Your task to perform on an android device: find snoozed emails in the gmail app Image 0: 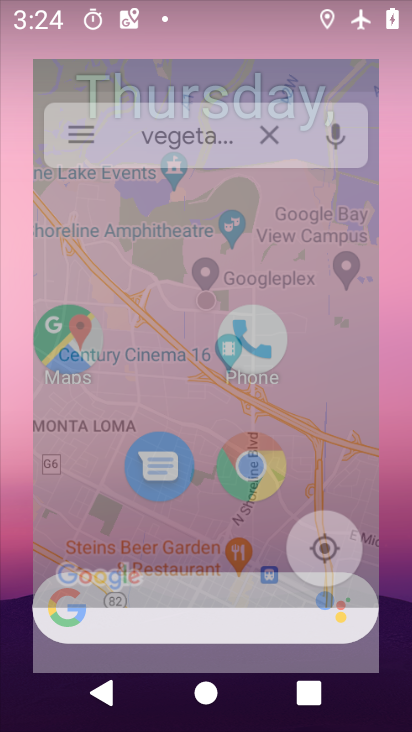
Step 0: drag from (222, 437) to (257, 169)
Your task to perform on an android device: find snoozed emails in the gmail app Image 1: 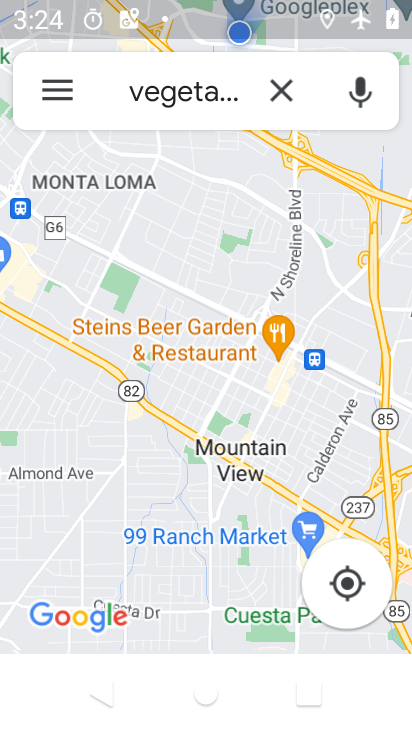
Step 1: press home button
Your task to perform on an android device: find snoozed emails in the gmail app Image 2: 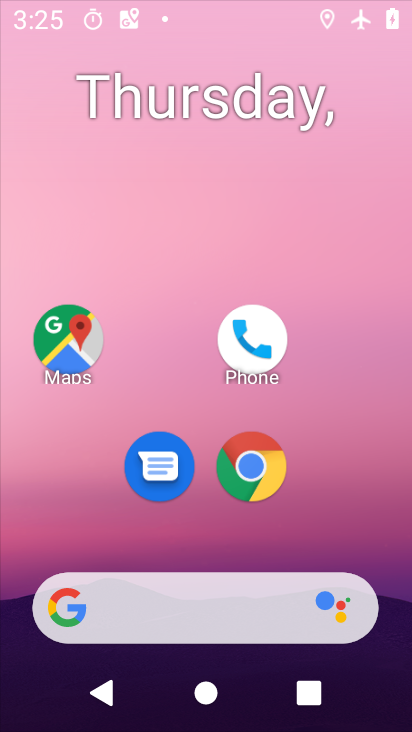
Step 2: drag from (209, 525) to (256, 121)
Your task to perform on an android device: find snoozed emails in the gmail app Image 3: 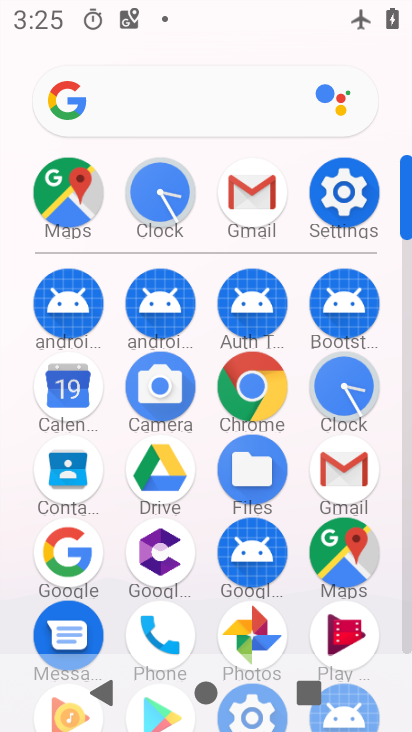
Step 3: click (340, 467)
Your task to perform on an android device: find snoozed emails in the gmail app Image 4: 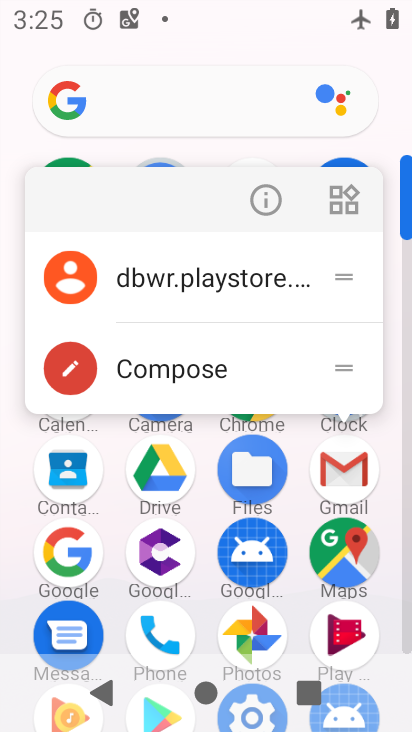
Step 4: click (197, 283)
Your task to perform on an android device: find snoozed emails in the gmail app Image 5: 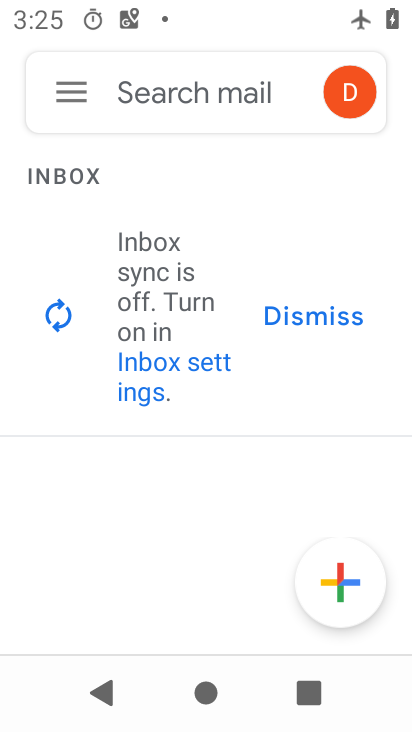
Step 5: click (64, 81)
Your task to perform on an android device: find snoozed emails in the gmail app Image 6: 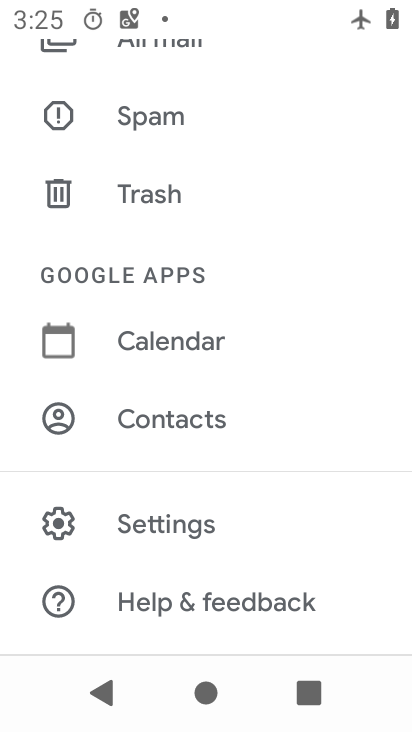
Step 6: drag from (201, 130) to (278, 634)
Your task to perform on an android device: find snoozed emails in the gmail app Image 7: 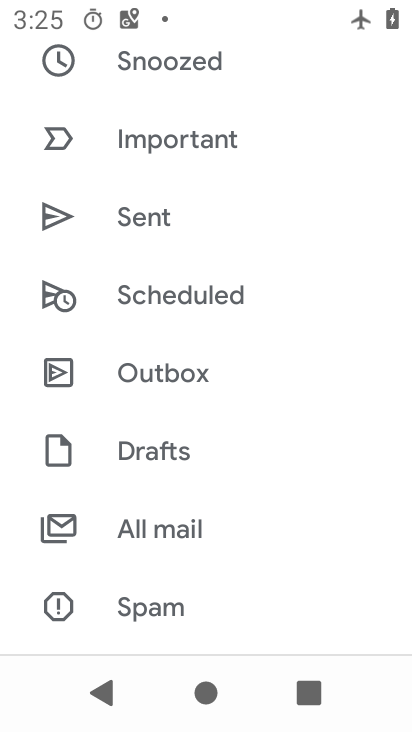
Step 7: click (174, 65)
Your task to perform on an android device: find snoozed emails in the gmail app Image 8: 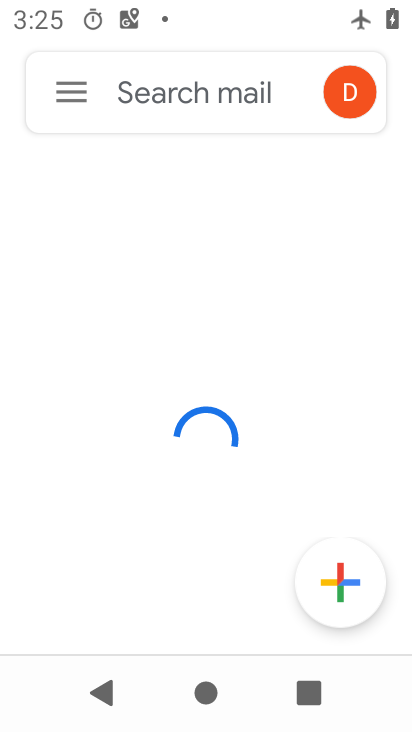
Step 8: click (68, 82)
Your task to perform on an android device: find snoozed emails in the gmail app Image 9: 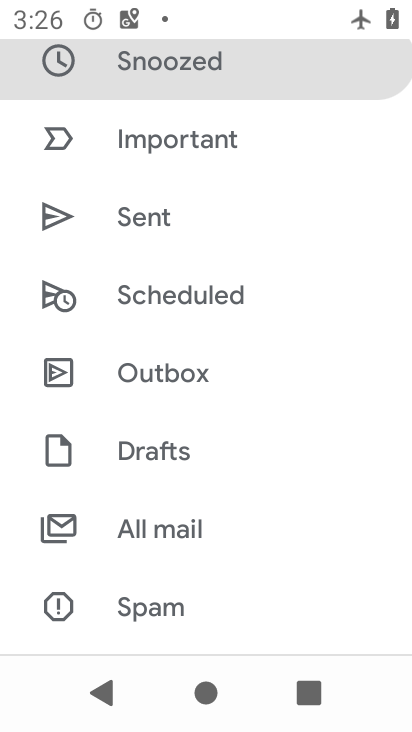
Step 9: click (210, 61)
Your task to perform on an android device: find snoozed emails in the gmail app Image 10: 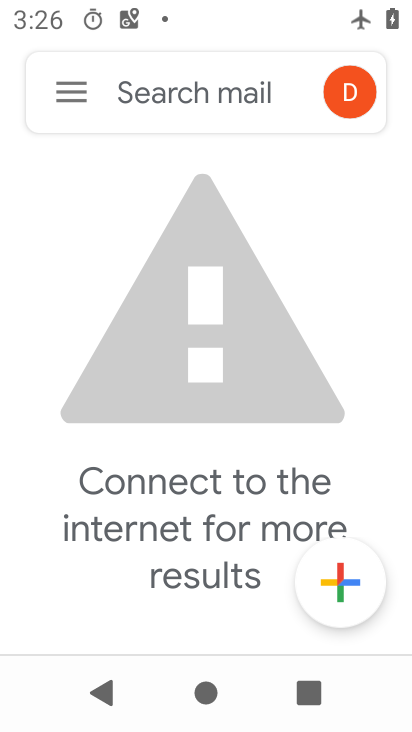
Step 10: task complete